Your task to perform on an android device: change timer sound Image 0: 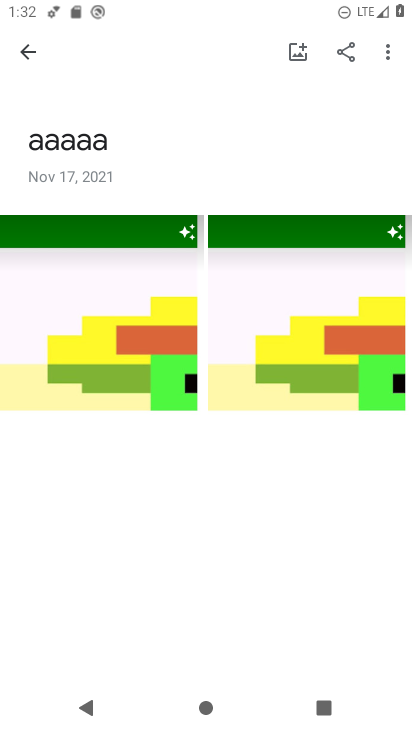
Step 0: press home button
Your task to perform on an android device: change timer sound Image 1: 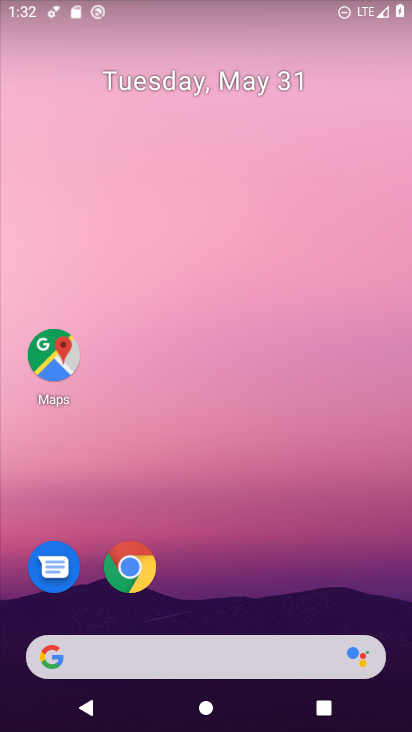
Step 1: drag from (226, 613) to (227, 217)
Your task to perform on an android device: change timer sound Image 2: 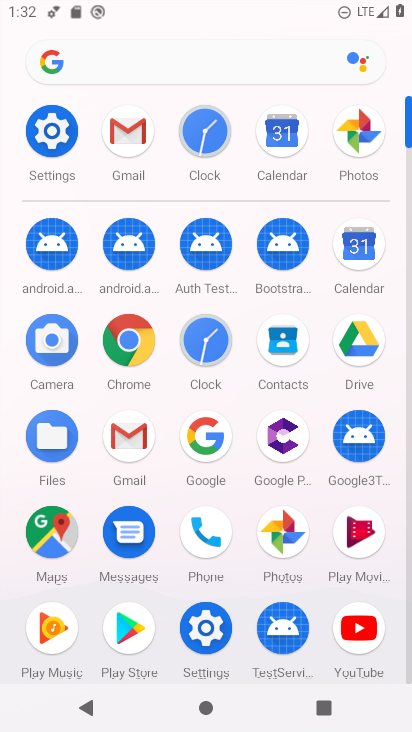
Step 2: click (205, 318)
Your task to perform on an android device: change timer sound Image 3: 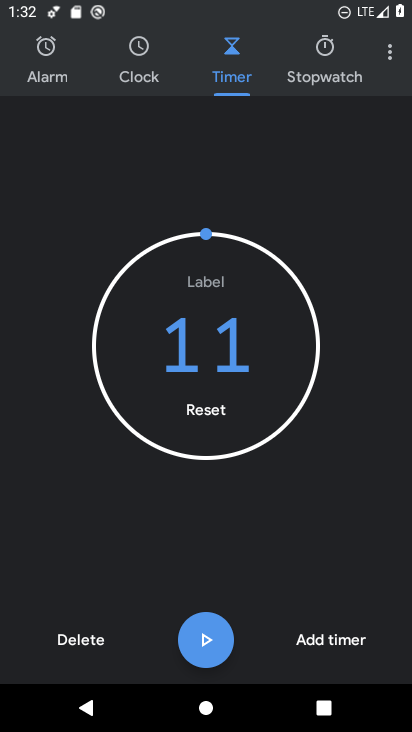
Step 3: click (388, 46)
Your task to perform on an android device: change timer sound Image 4: 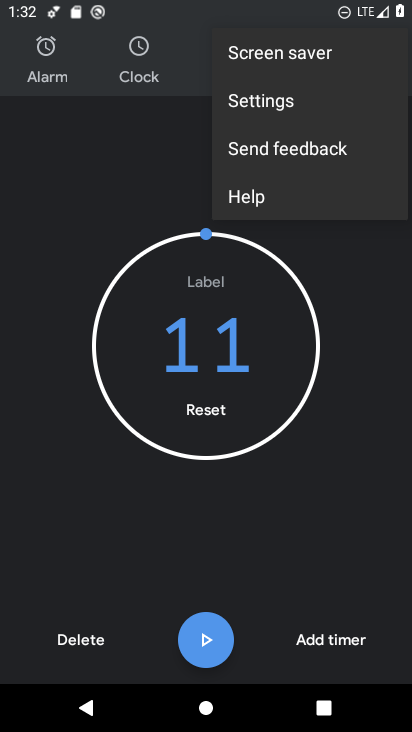
Step 4: click (301, 114)
Your task to perform on an android device: change timer sound Image 5: 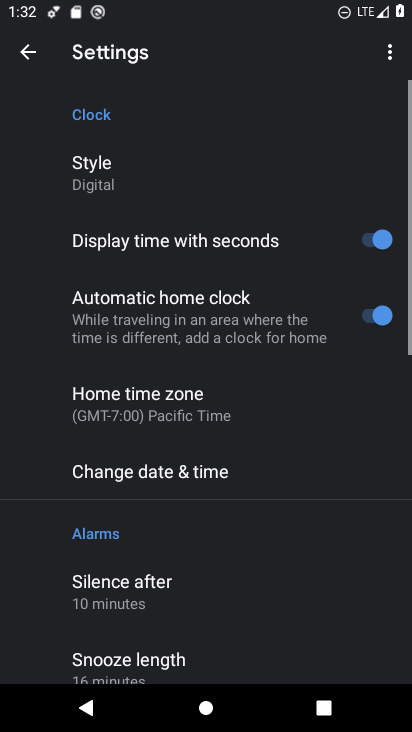
Step 5: drag from (148, 602) to (217, 194)
Your task to perform on an android device: change timer sound Image 6: 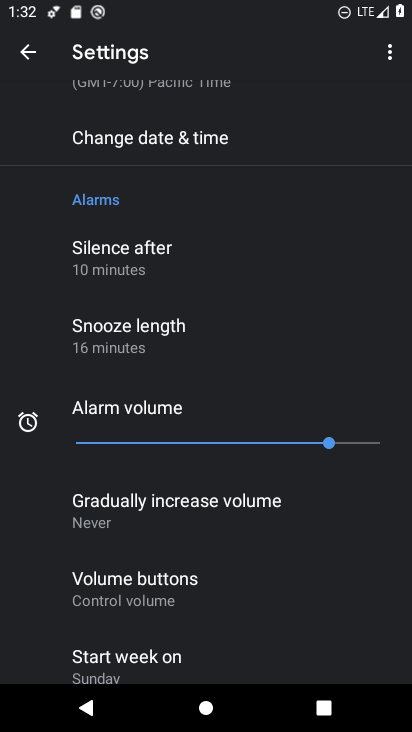
Step 6: drag from (165, 653) to (223, 339)
Your task to perform on an android device: change timer sound Image 7: 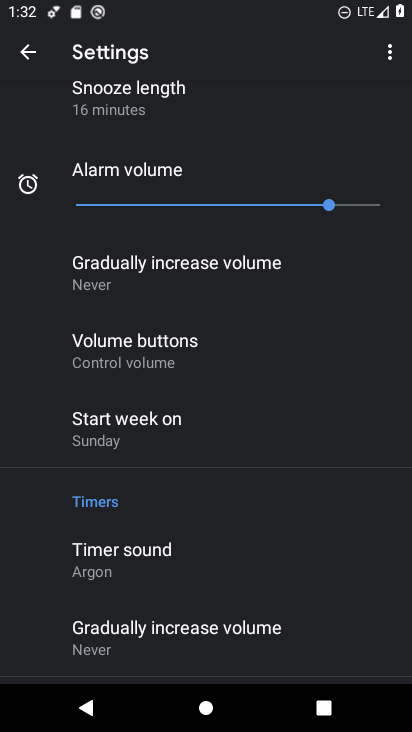
Step 7: click (184, 568)
Your task to perform on an android device: change timer sound Image 8: 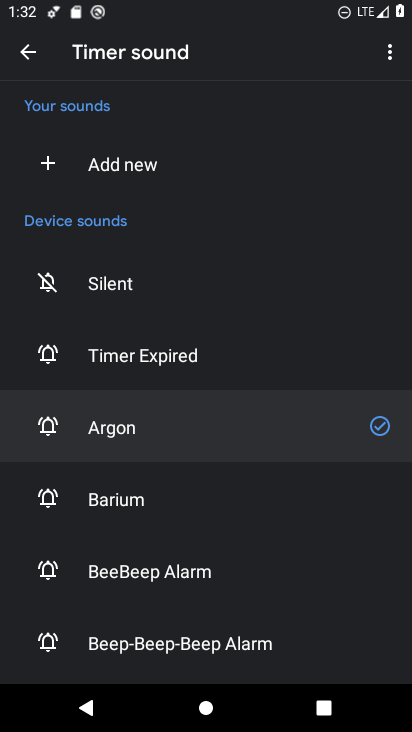
Step 8: click (174, 558)
Your task to perform on an android device: change timer sound Image 9: 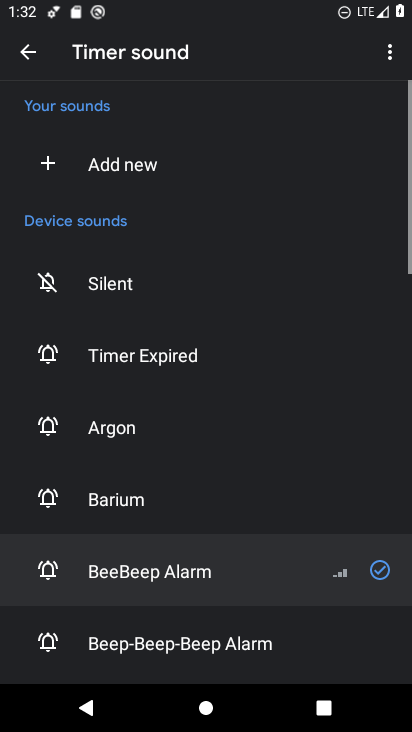
Step 9: task complete